Your task to perform on an android device: Search for sushi restaurants on Maps Image 0: 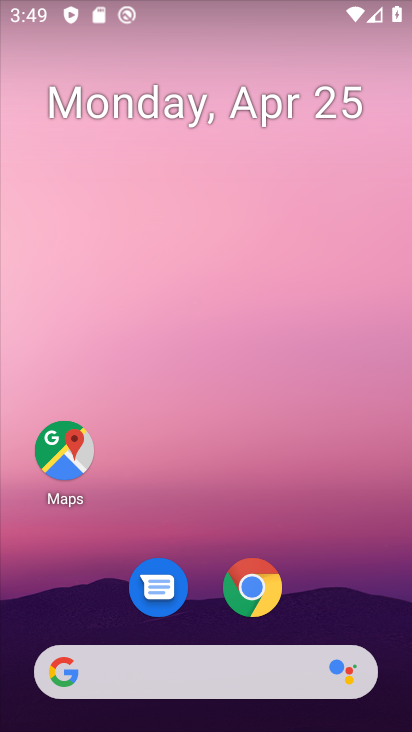
Step 0: click (60, 457)
Your task to perform on an android device: Search for sushi restaurants on Maps Image 1: 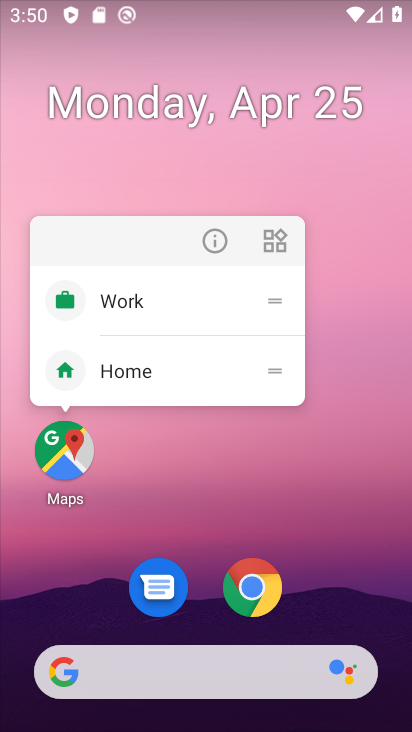
Step 1: click (60, 458)
Your task to perform on an android device: Search for sushi restaurants on Maps Image 2: 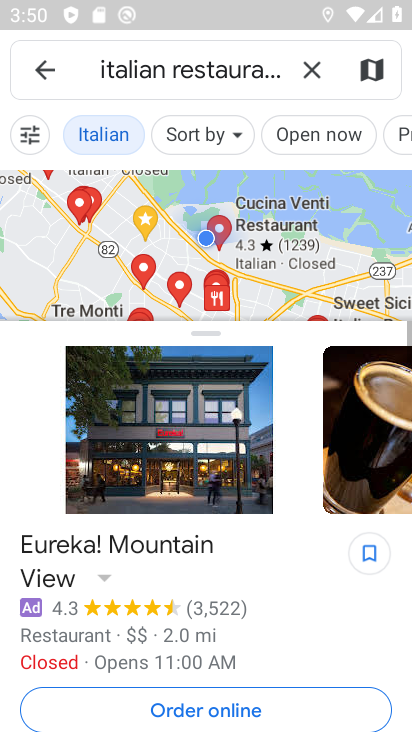
Step 2: click (313, 72)
Your task to perform on an android device: Search for sushi restaurants on Maps Image 3: 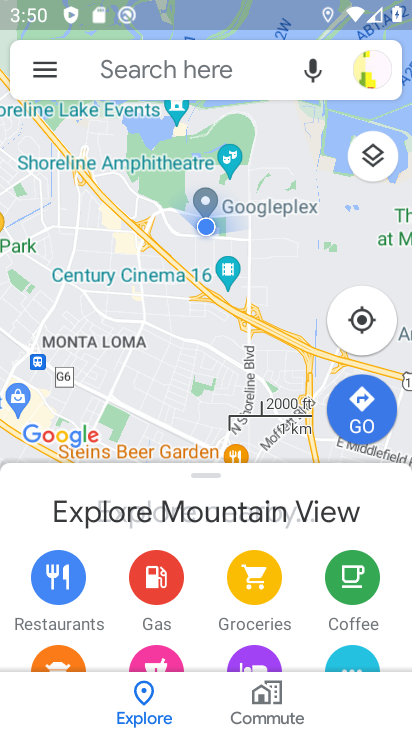
Step 3: click (200, 75)
Your task to perform on an android device: Search for sushi restaurants on Maps Image 4: 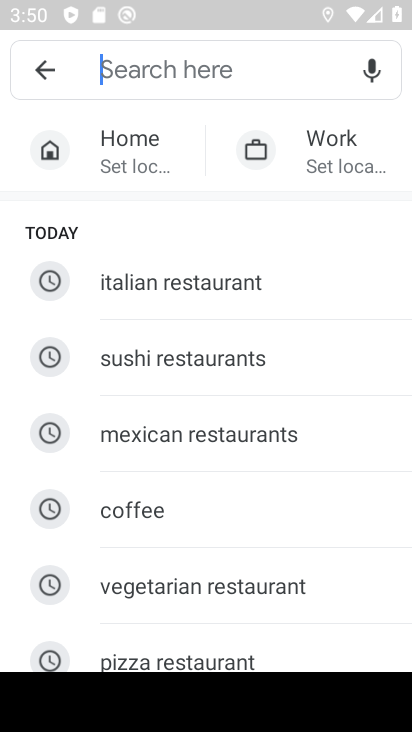
Step 4: click (152, 363)
Your task to perform on an android device: Search for sushi restaurants on Maps Image 5: 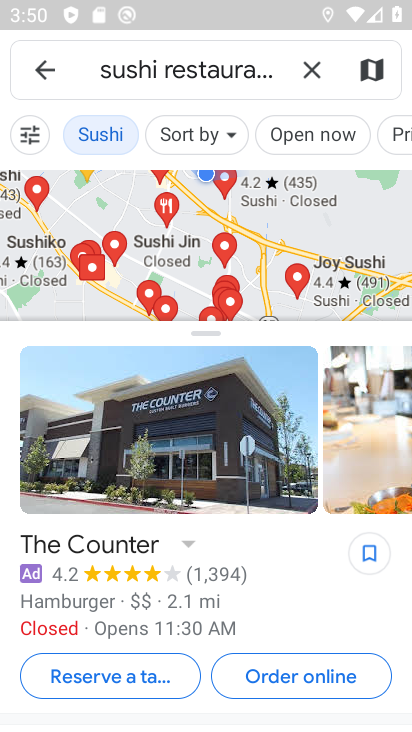
Step 5: task complete